Your task to perform on an android device: turn on the 24-hour format for clock Image 0: 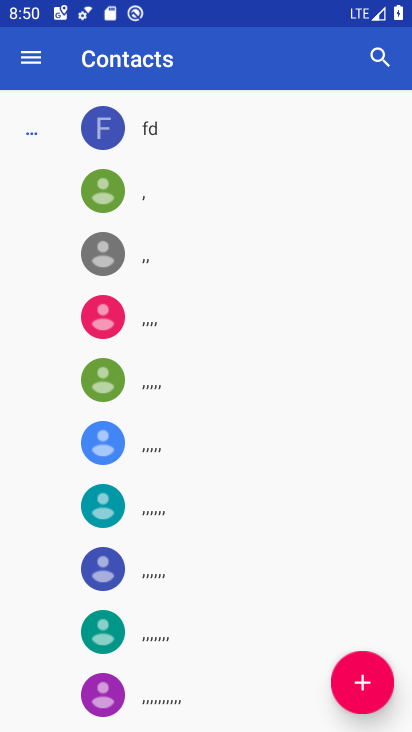
Step 0: press home button
Your task to perform on an android device: turn on the 24-hour format for clock Image 1: 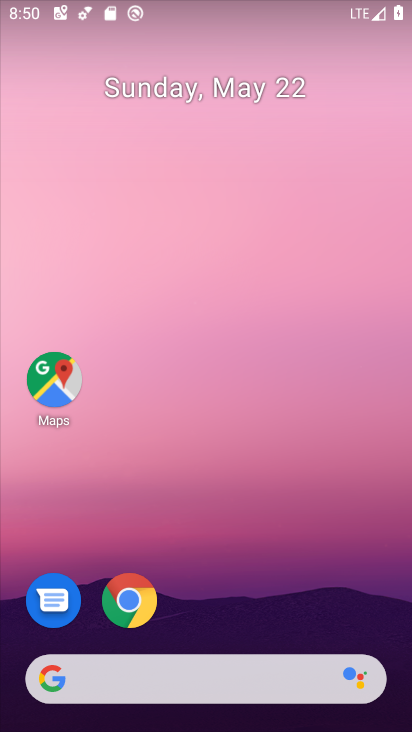
Step 1: drag from (251, 621) to (264, 292)
Your task to perform on an android device: turn on the 24-hour format for clock Image 2: 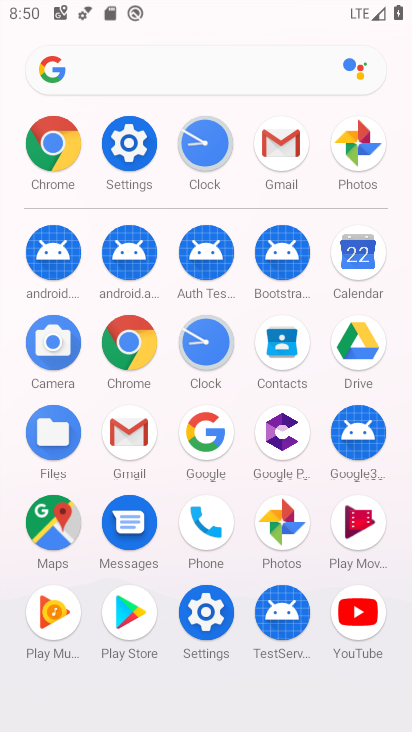
Step 2: click (208, 151)
Your task to perform on an android device: turn on the 24-hour format for clock Image 3: 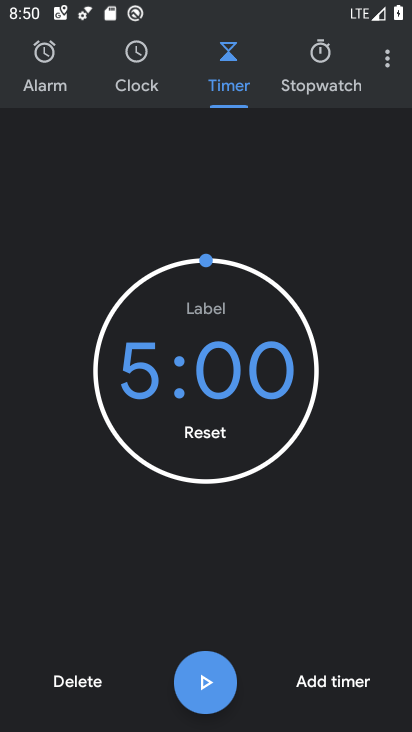
Step 3: click (391, 63)
Your task to perform on an android device: turn on the 24-hour format for clock Image 4: 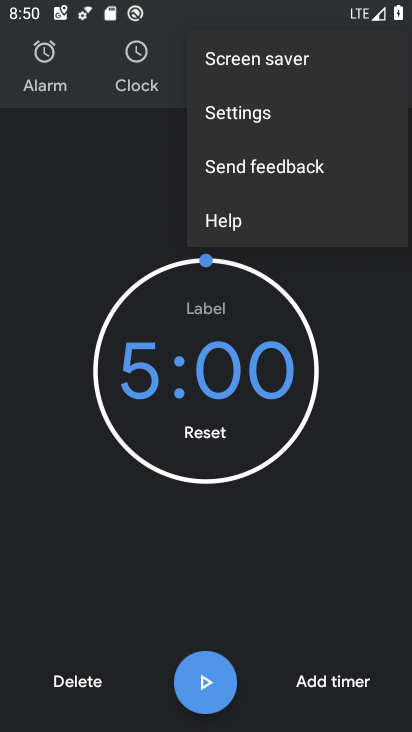
Step 4: click (286, 122)
Your task to perform on an android device: turn on the 24-hour format for clock Image 5: 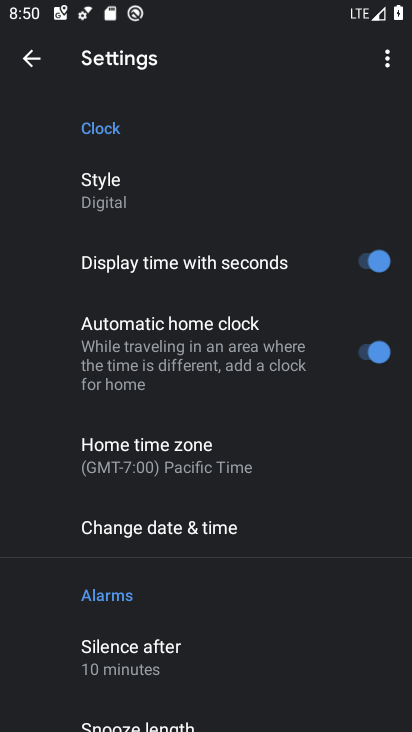
Step 5: click (185, 521)
Your task to perform on an android device: turn on the 24-hour format for clock Image 6: 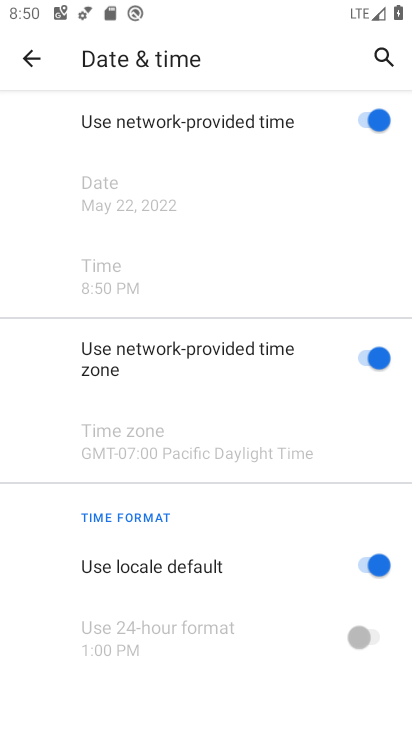
Step 6: click (374, 564)
Your task to perform on an android device: turn on the 24-hour format for clock Image 7: 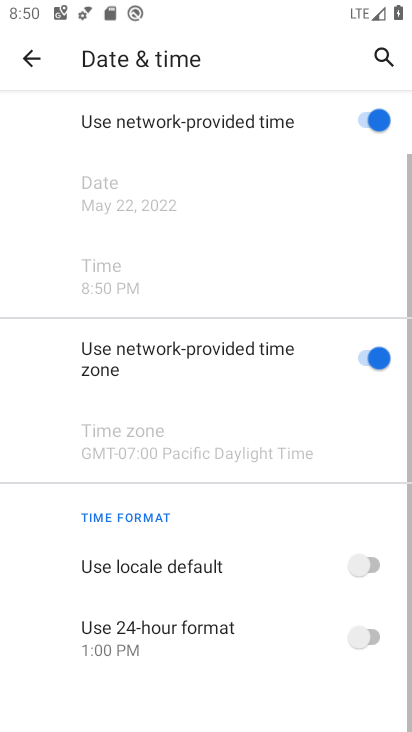
Step 7: click (361, 640)
Your task to perform on an android device: turn on the 24-hour format for clock Image 8: 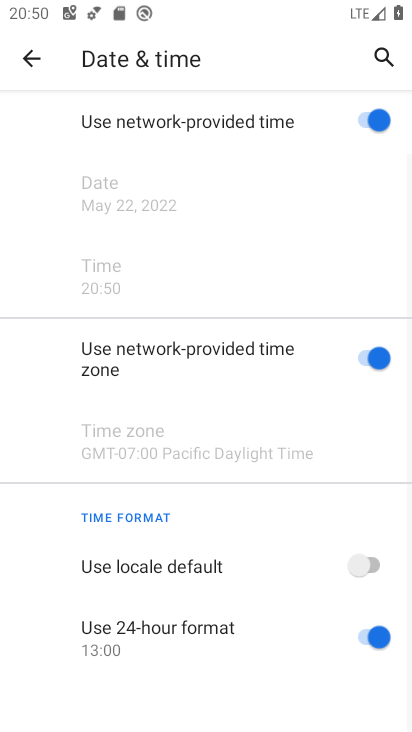
Step 8: task complete